Your task to perform on an android device: Open Google Chrome and open the bookmarks view Image 0: 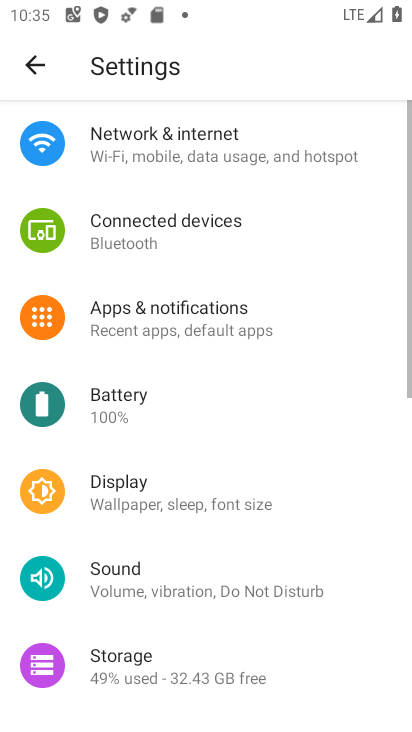
Step 0: press home button
Your task to perform on an android device: Open Google Chrome and open the bookmarks view Image 1: 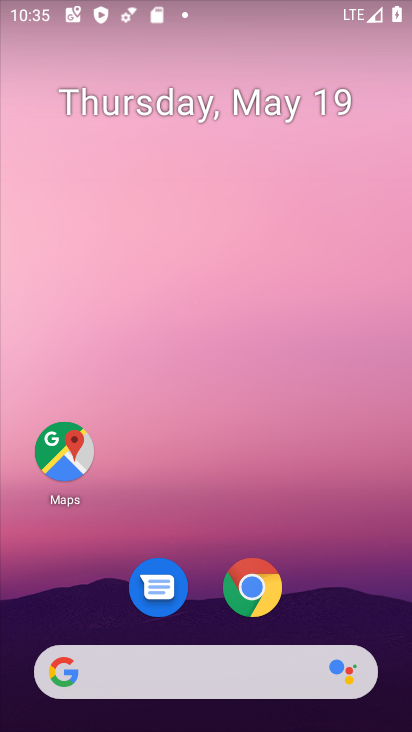
Step 1: click (275, 589)
Your task to perform on an android device: Open Google Chrome and open the bookmarks view Image 2: 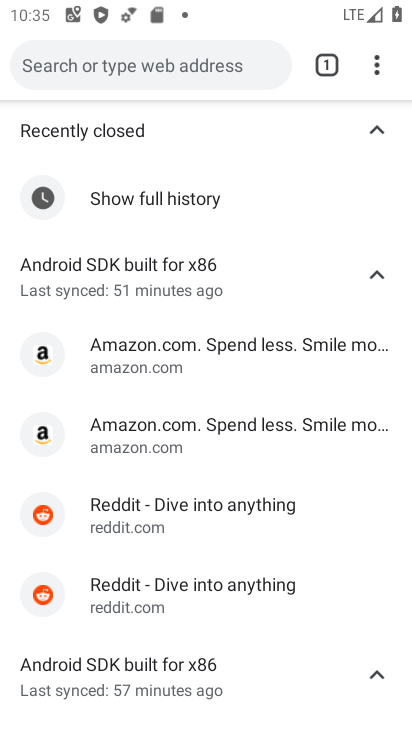
Step 2: click (384, 58)
Your task to perform on an android device: Open Google Chrome and open the bookmarks view Image 3: 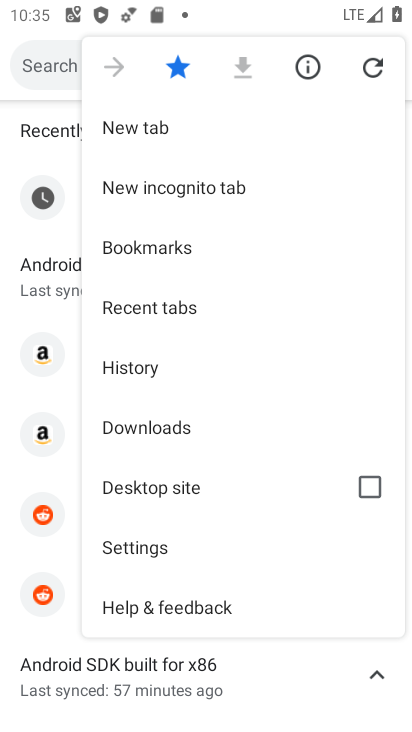
Step 3: click (159, 242)
Your task to perform on an android device: Open Google Chrome and open the bookmarks view Image 4: 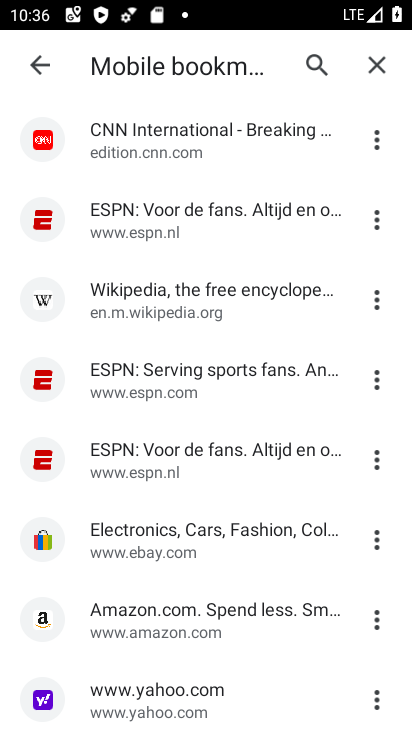
Step 4: task complete